Your task to perform on an android device: search for starred emails in the gmail app Image 0: 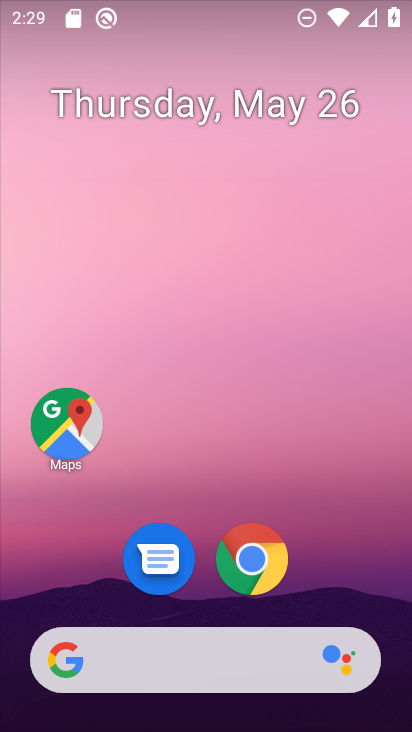
Step 0: drag from (188, 671) to (352, 185)
Your task to perform on an android device: search for starred emails in the gmail app Image 1: 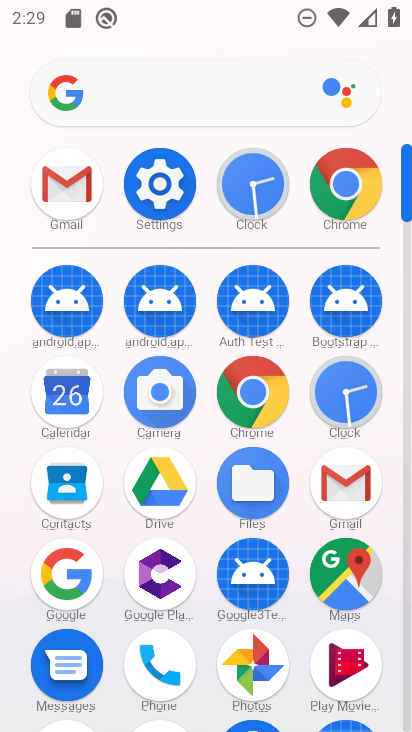
Step 1: click (71, 209)
Your task to perform on an android device: search for starred emails in the gmail app Image 2: 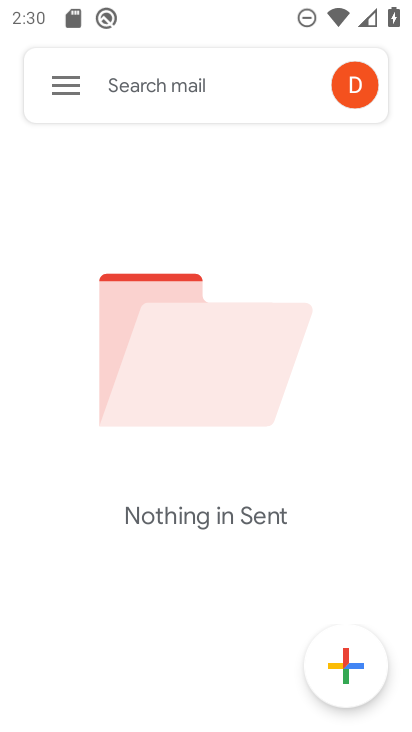
Step 2: click (63, 83)
Your task to perform on an android device: search for starred emails in the gmail app Image 3: 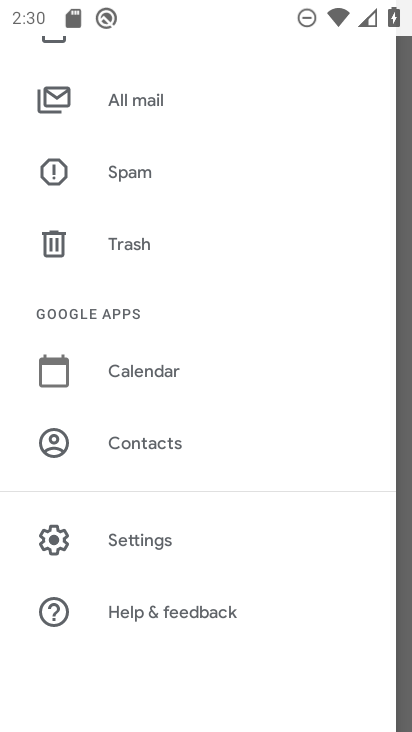
Step 3: drag from (213, 221) to (145, 602)
Your task to perform on an android device: search for starred emails in the gmail app Image 4: 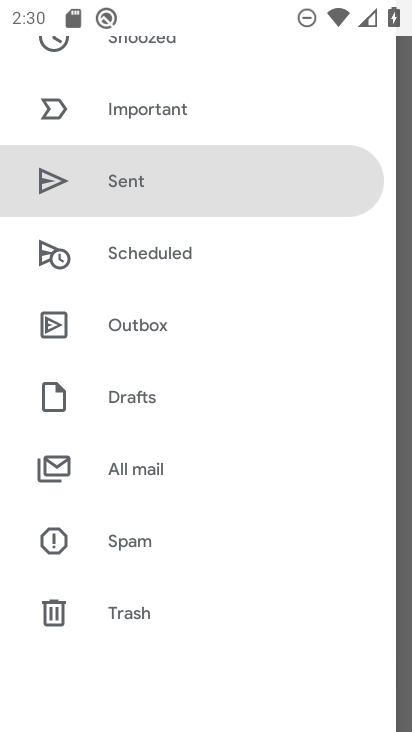
Step 4: drag from (200, 267) to (194, 591)
Your task to perform on an android device: search for starred emails in the gmail app Image 5: 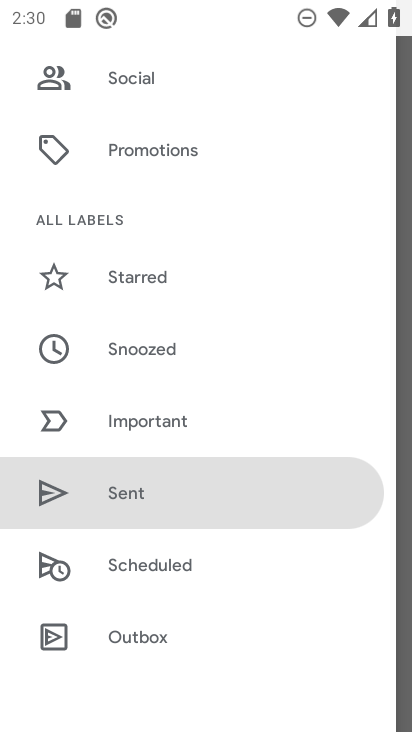
Step 5: click (131, 274)
Your task to perform on an android device: search for starred emails in the gmail app Image 6: 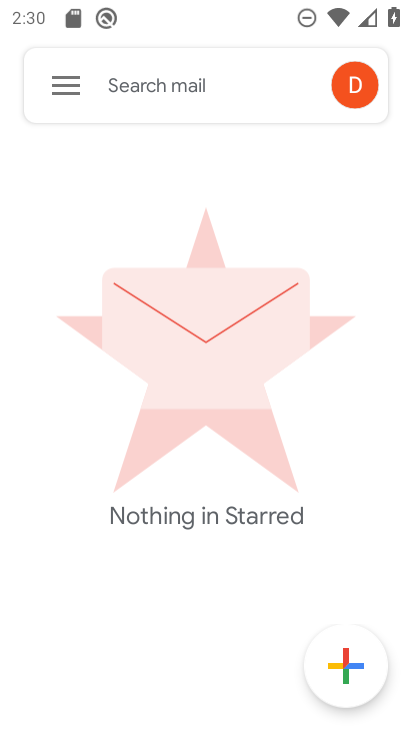
Step 6: task complete